Your task to perform on an android device: Open calendar and show me the fourth week of next month Image 0: 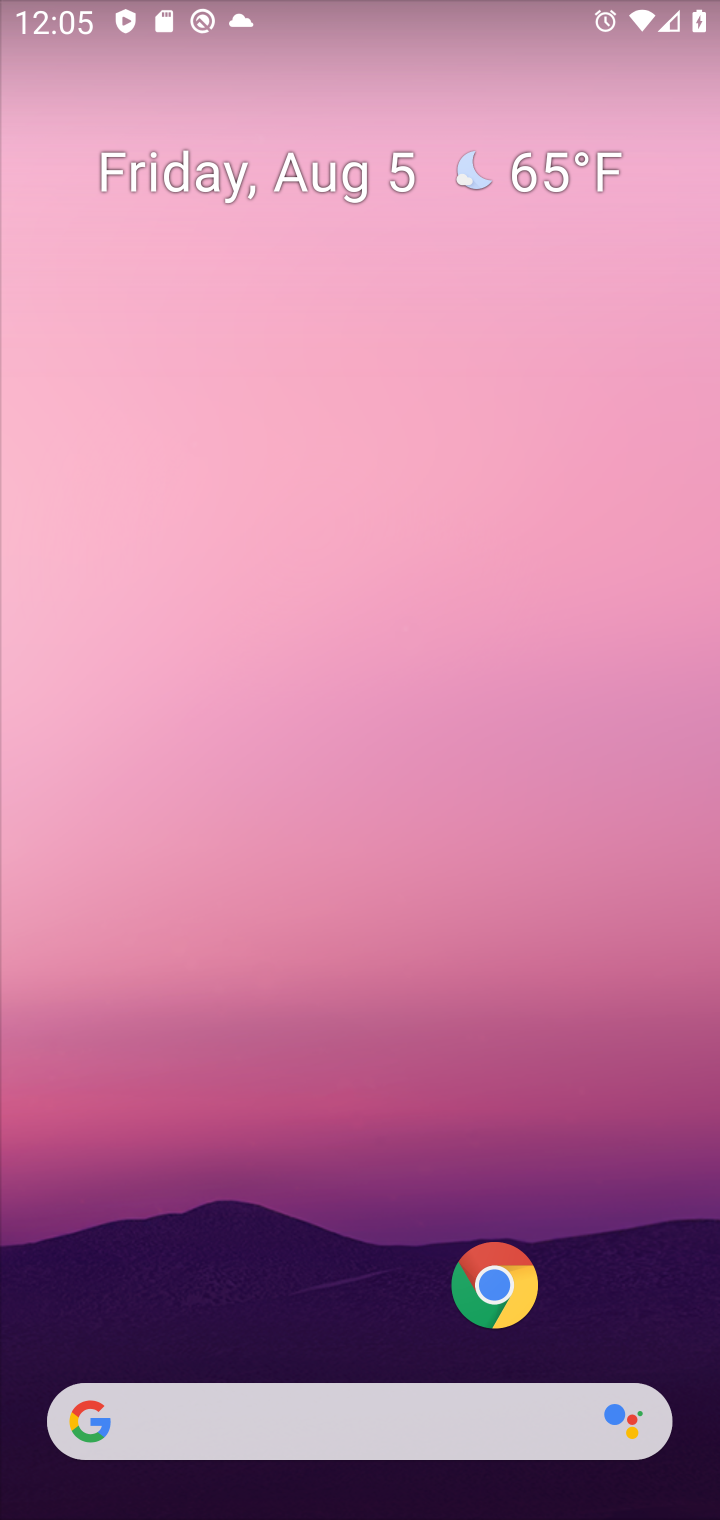
Step 0: press home button
Your task to perform on an android device: Open calendar and show me the fourth week of next month Image 1: 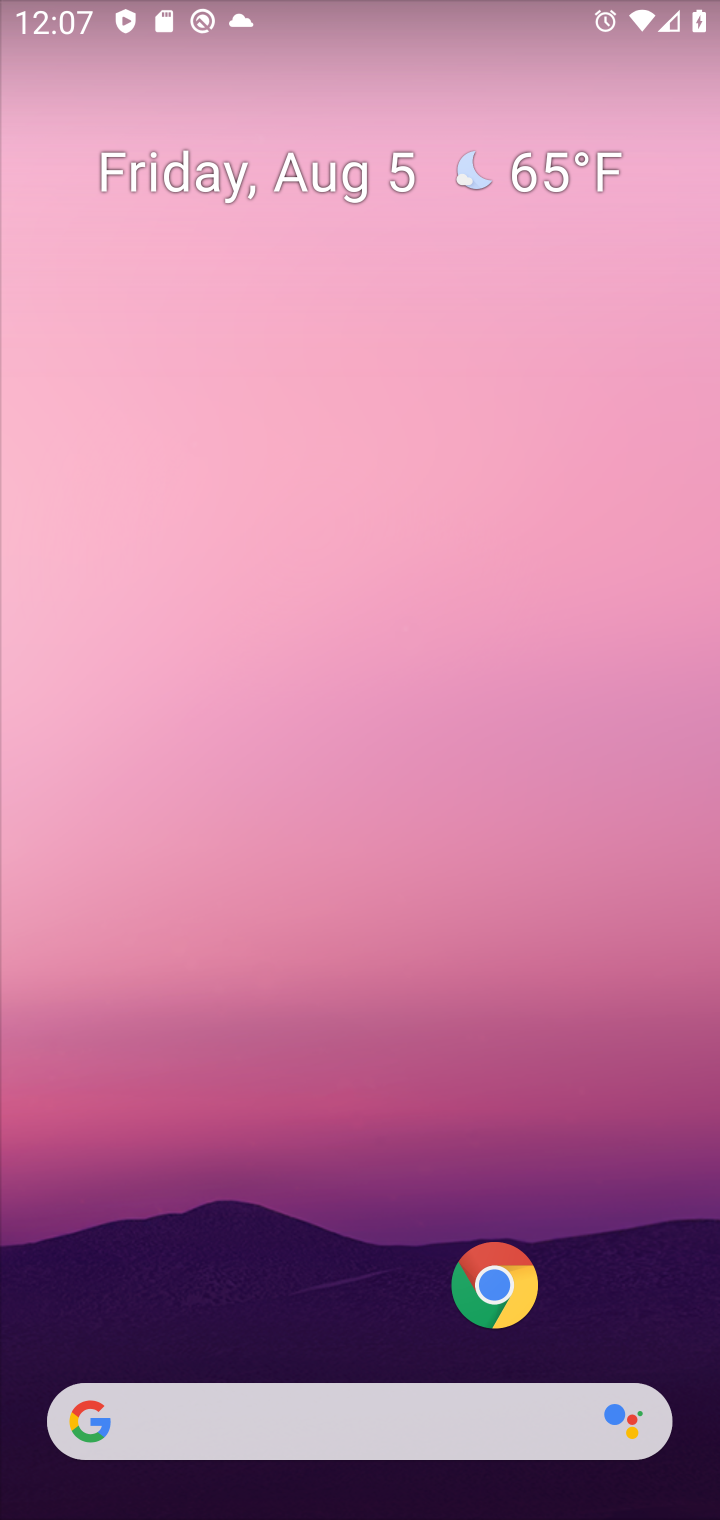
Step 1: drag from (218, 1107) to (75, 113)
Your task to perform on an android device: Open calendar and show me the fourth week of next month Image 2: 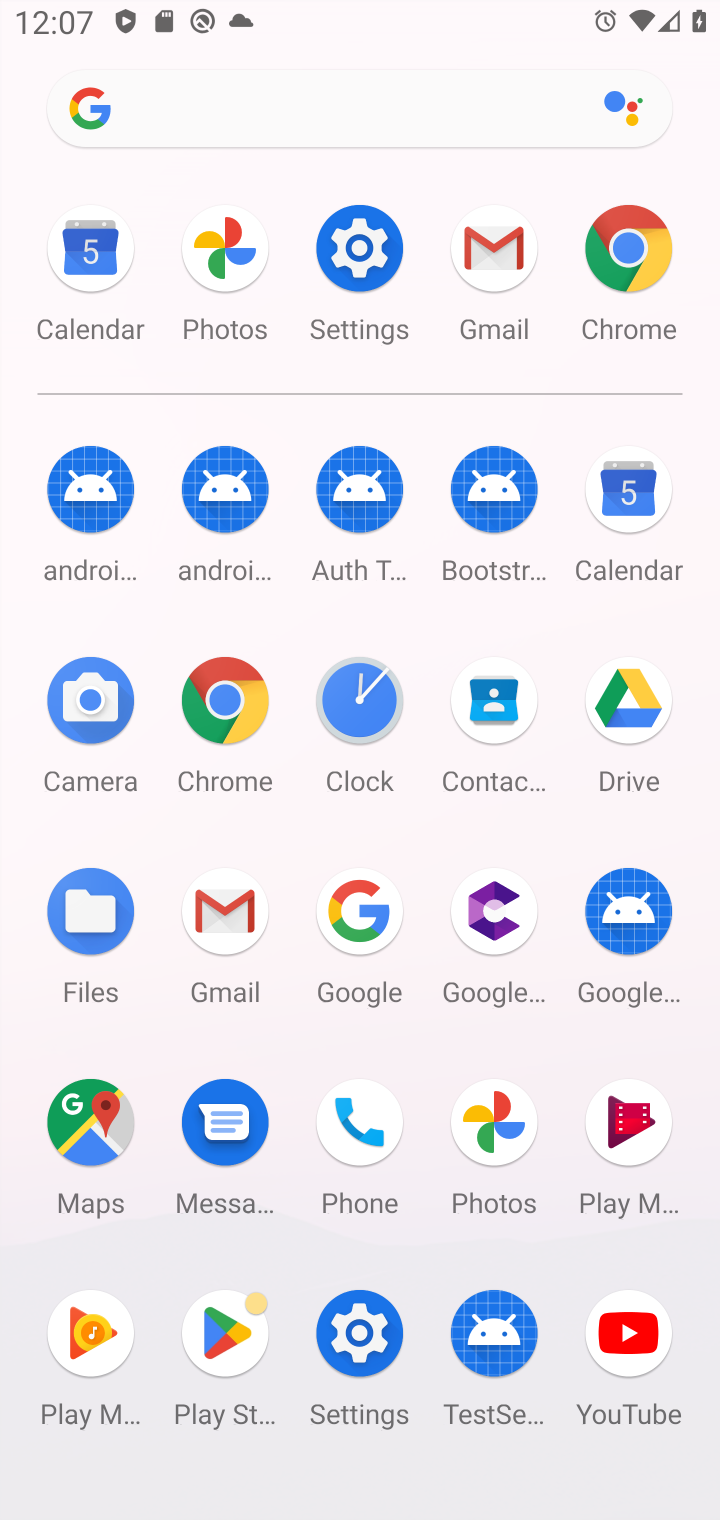
Step 2: click (605, 450)
Your task to perform on an android device: Open calendar and show me the fourth week of next month Image 3: 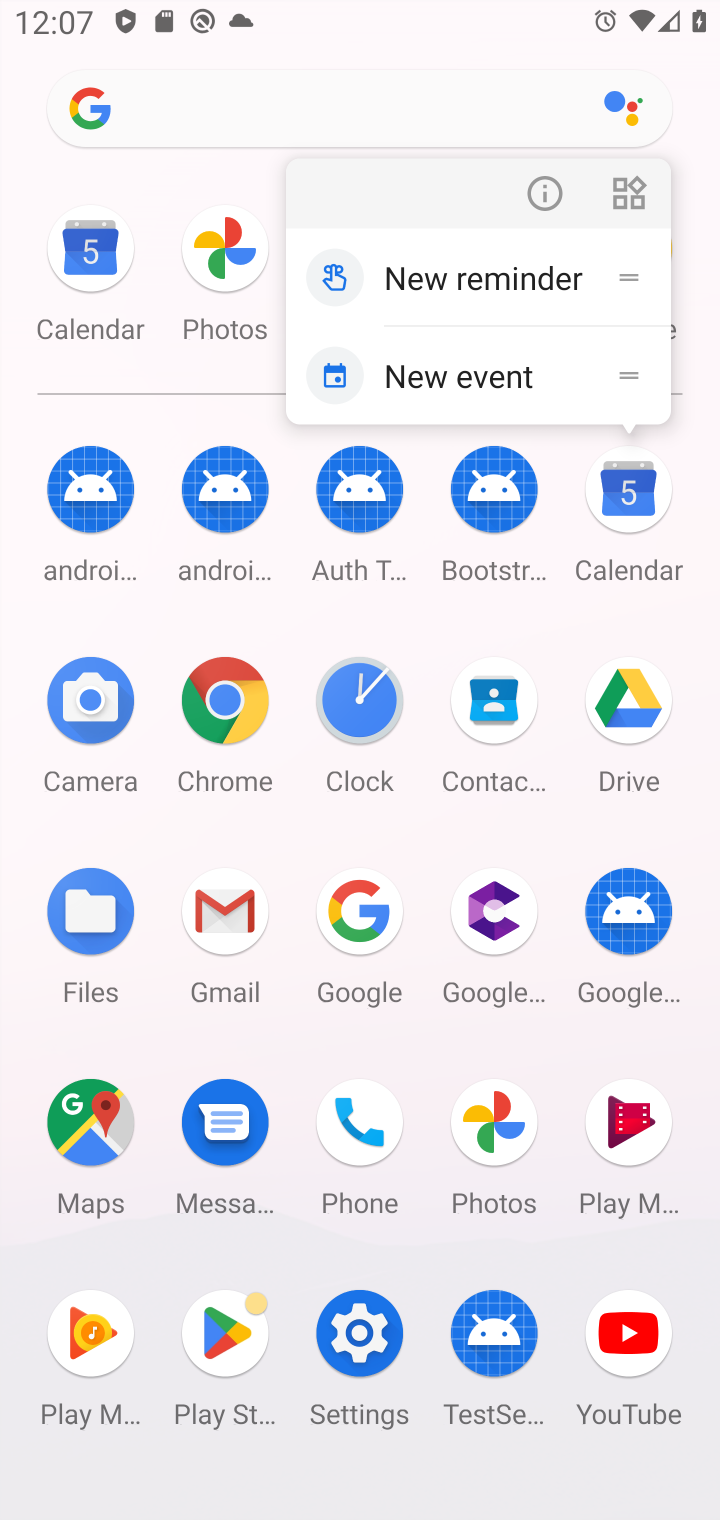
Step 3: click (643, 506)
Your task to perform on an android device: Open calendar and show me the fourth week of next month Image 4: 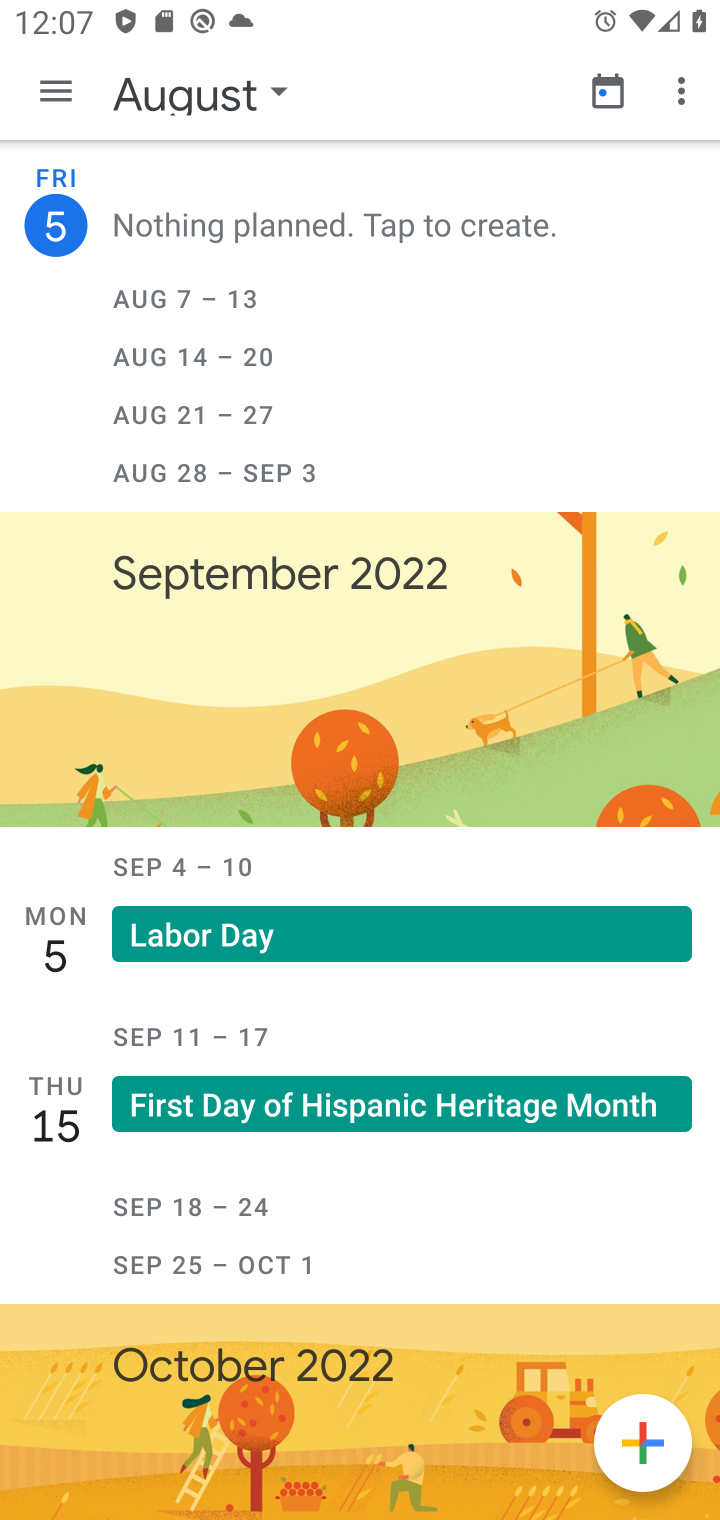
Step 4: click (187, 83)
Your task to perform on an android device: Open calendar and show me the fourth week of next month Image 5: 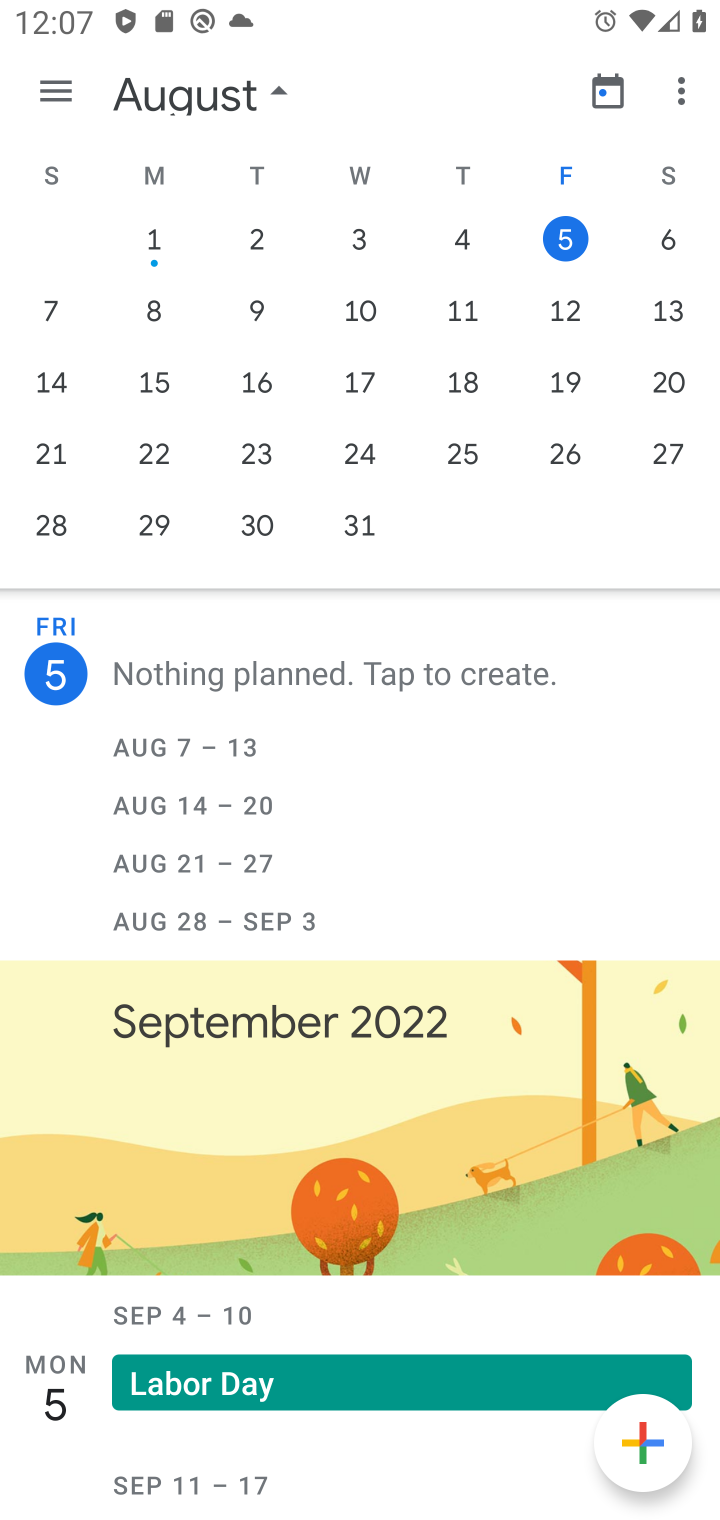
Step 5: drag from (683, 378) to (39, 588)
Your task to perform on an android device: Open calendar and show me the fourth week of next month Image 6: 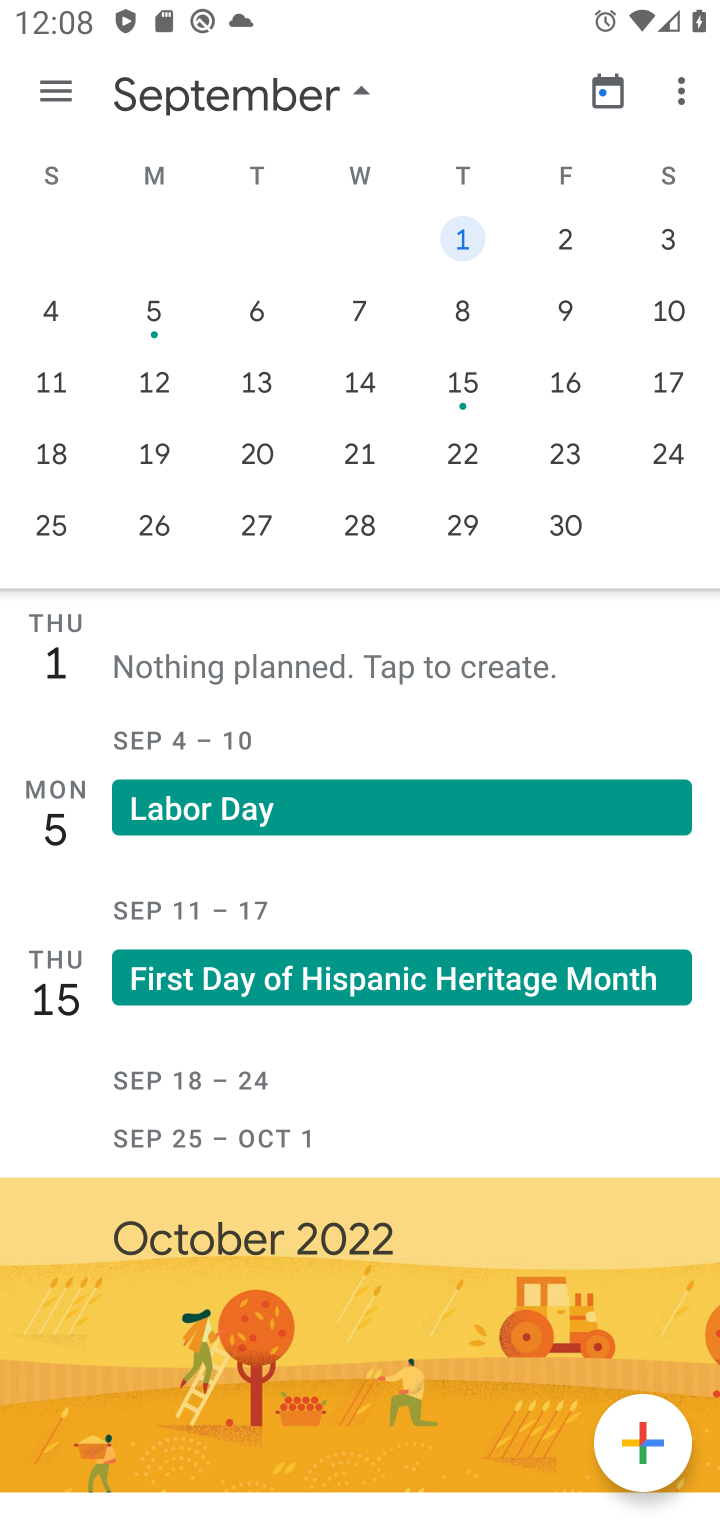
Step 6: click (471, 440)
Your task to perform on an android device: Open calendar and show me the fourth week of next month Image 7: 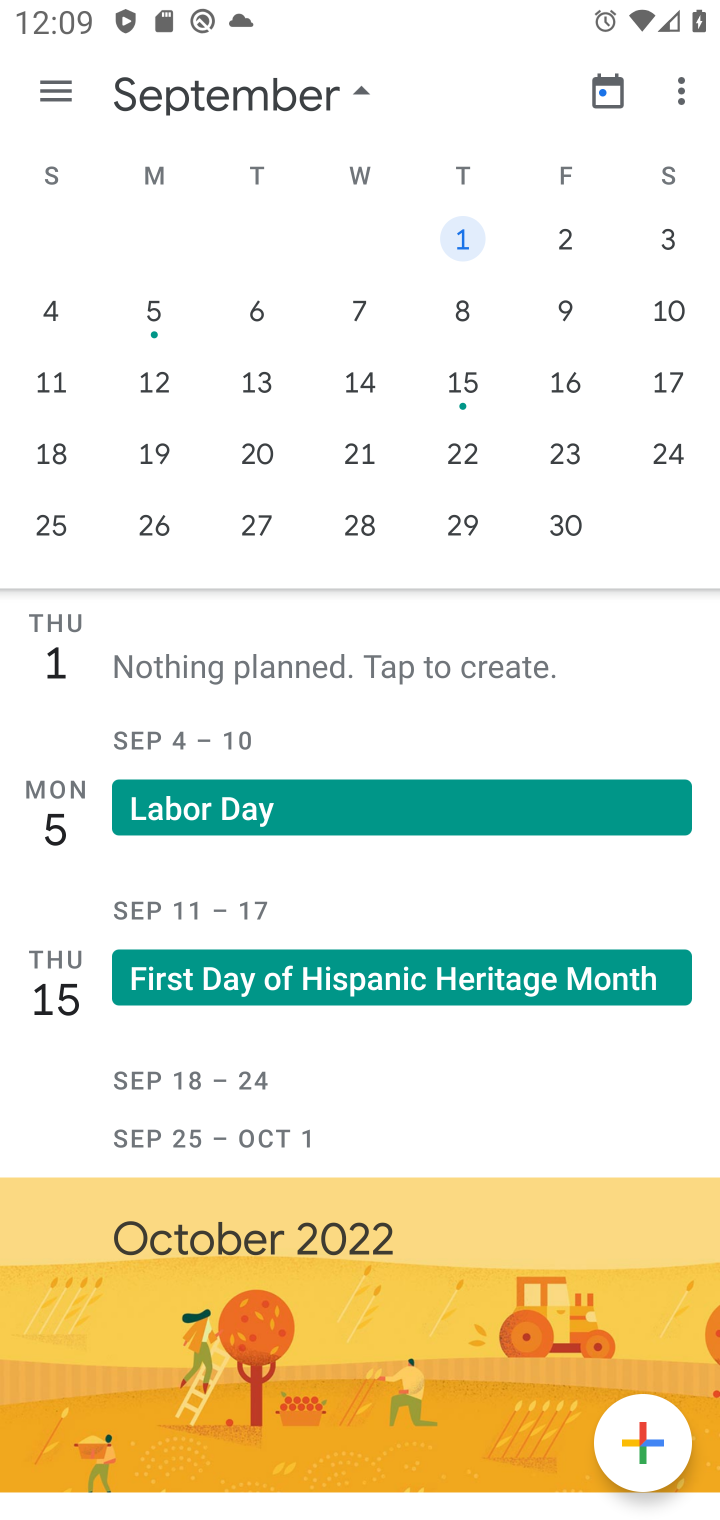
Step 7: click (497, 475)
Your task to perform on an android device: Open calendar and show me the fourth week of next month Image 8: 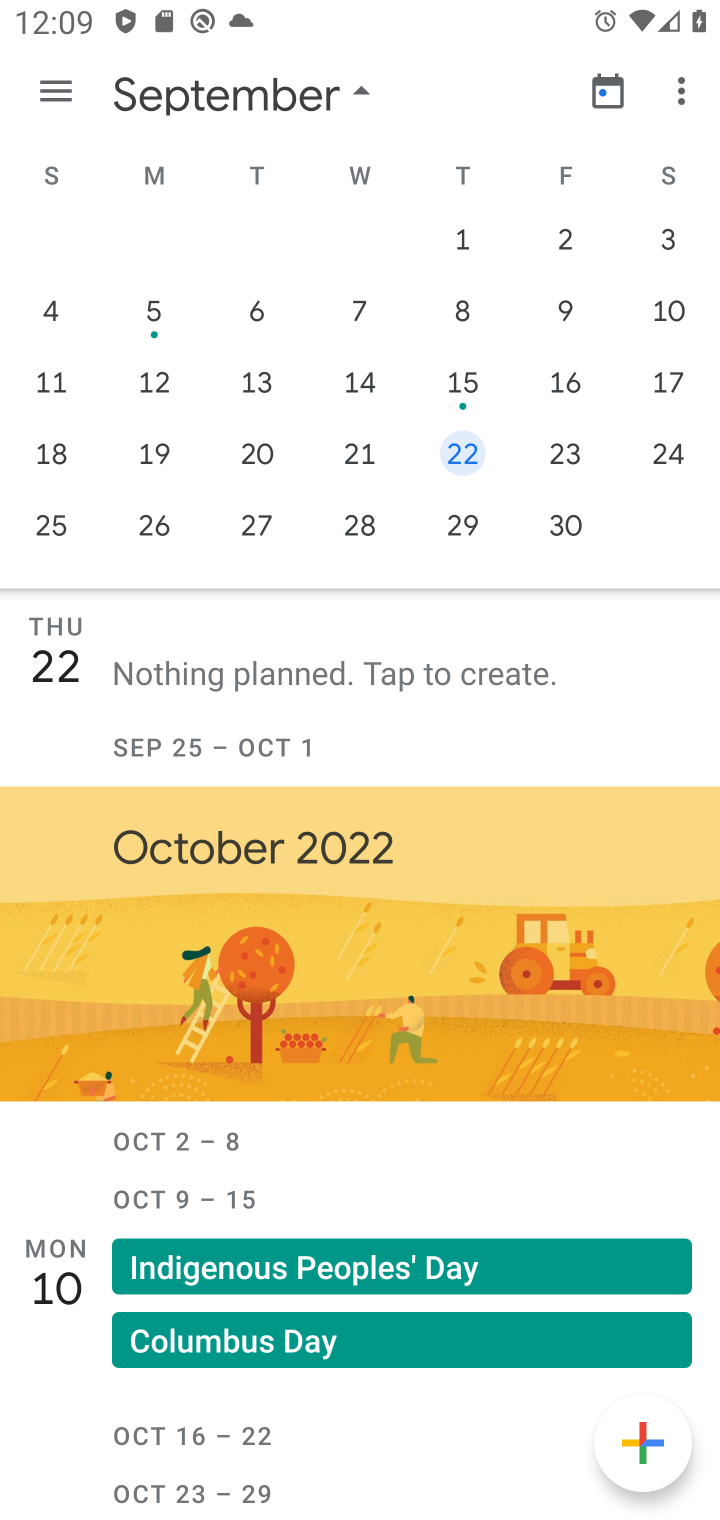
Step 8: task complete